Your task to perform on an android device: move a message to another label in the gmail app Image 0: 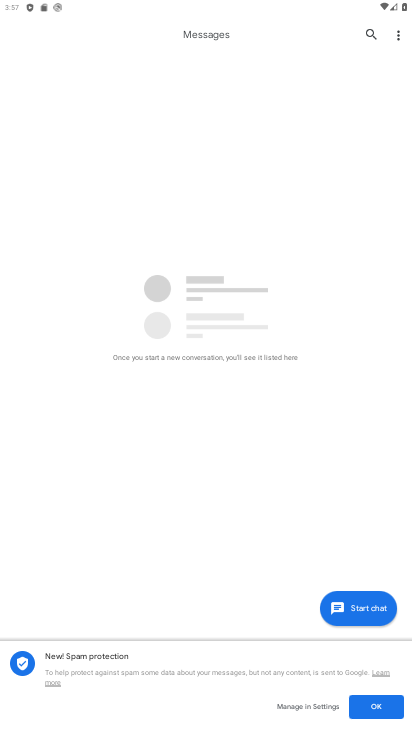
Step 0: drag from (184, 15) to (229, 627)
Your task to perform on an android device: move a message to another label in the gmail app Image 1: 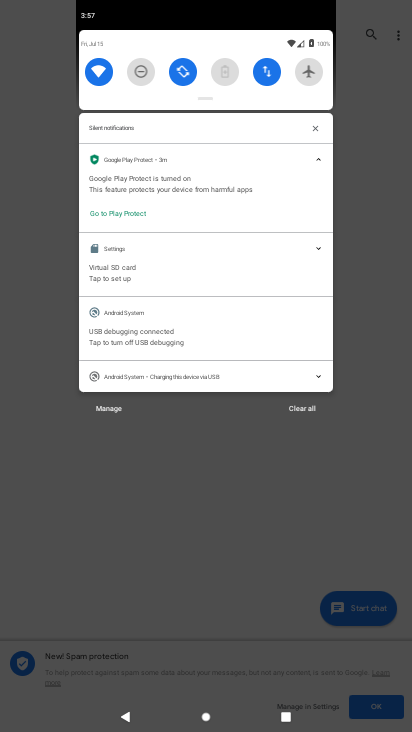
Step 1: press home button
Your task to perform on an android device: move a message to another label in the gmail app Image 2: 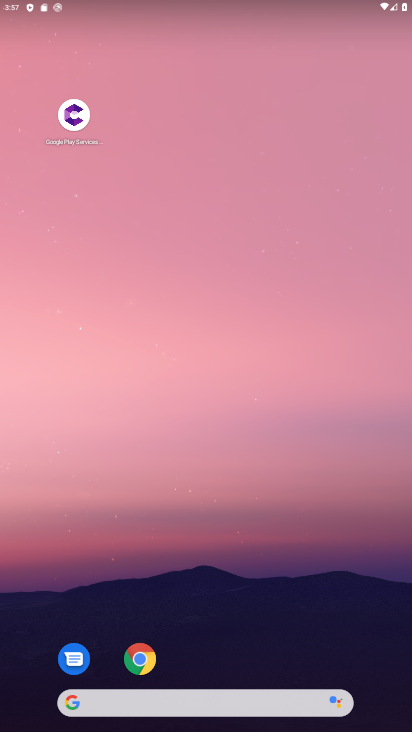
Step 2: drag from (193, 660) to (212, 13)
Your task to perform on an android device: move a message to another label in the gmail app Image 3: 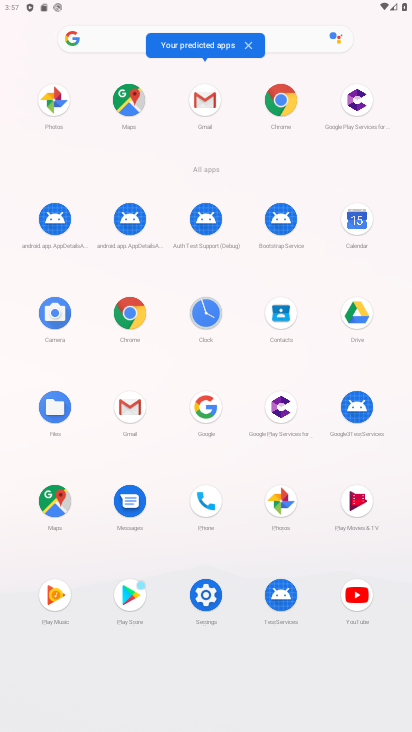
Step 3: click (209, 89)
Your task to perform on an android device: move a message to another label in the gmail app Image 4: 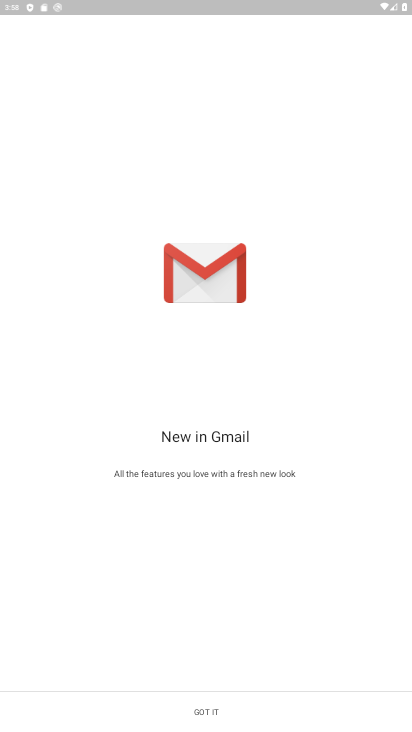
Step 4: click (202, 712)
Your task to perform on an android device: move a message to another label in the gmail app Image 5: 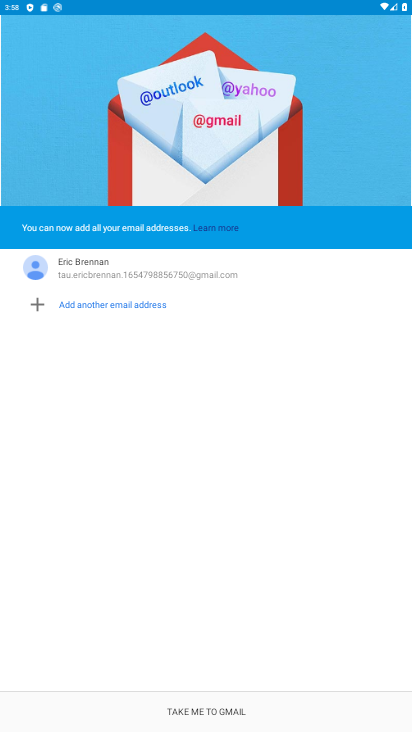
Step 5: click (202, 712)
Your task to perform on an android device: move a message to another label in the gmail app Image 6: 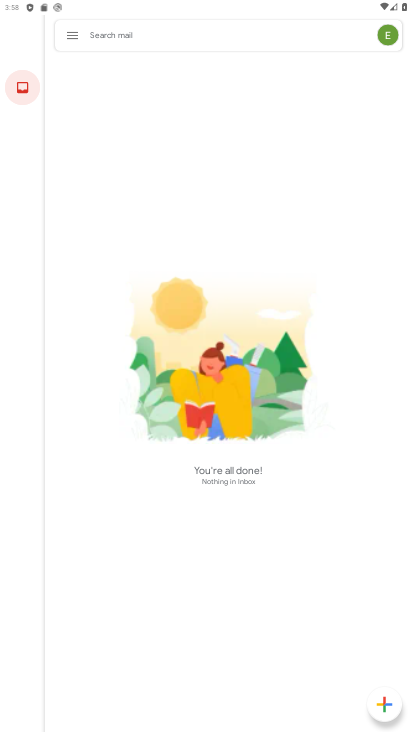
Step 6: task complete